Your task to perform on an android device: make emails show in primary in the gmail app Image 0: 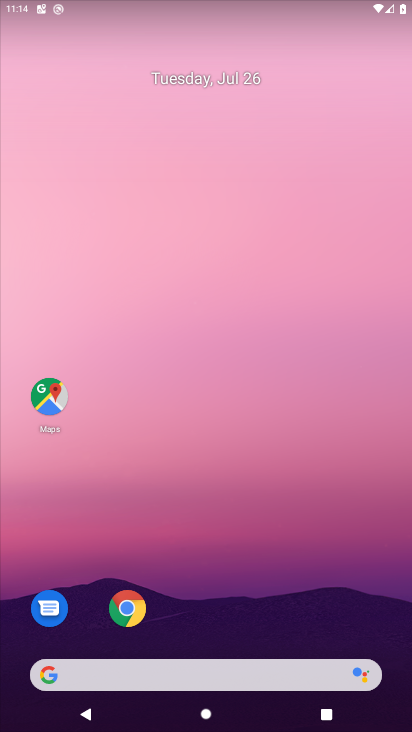
Step 0: click (316, 24)
Your task to perform on an android device: make emails show in primary in the gmail app Image 1: 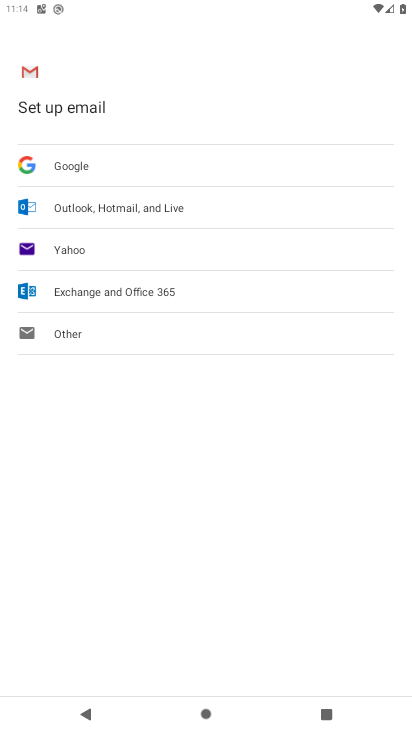
Step 1: press home button
Your task to perform on an android device: make emails show in primary in the gmail app Image 2: 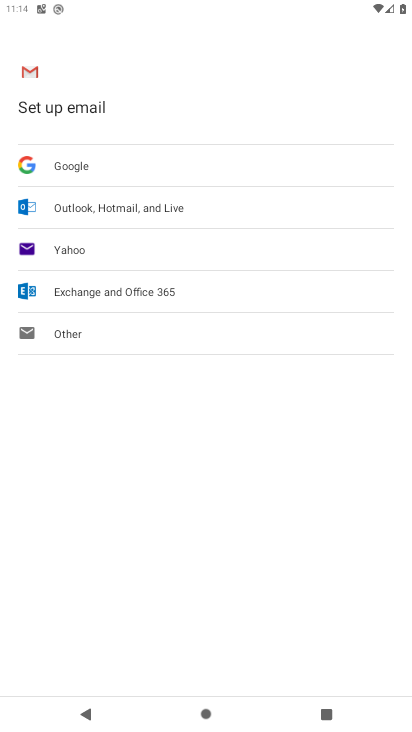
Step 2: press home button
Your task to perform on an android device: make emails show in primary in the gmail app Image 3: 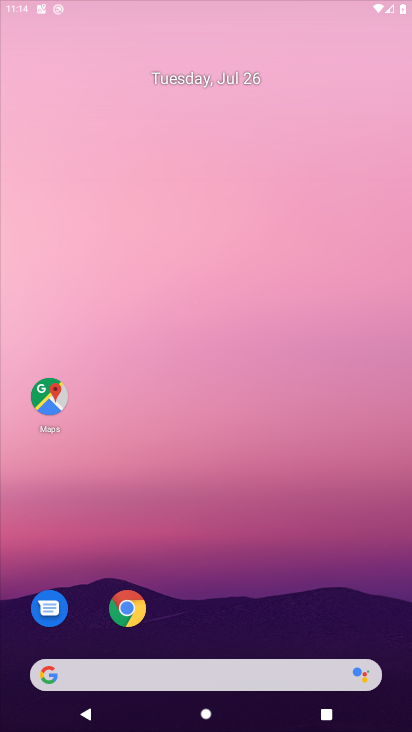
Step 3: drag from (187, 669) to (284, 165)
Your task to perform on an android device: make emails show in primary in the gmail app Image 4: 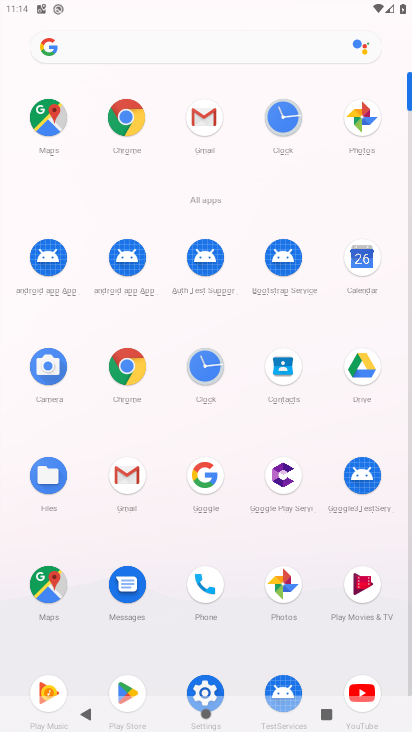
Step 4: click (128, 476)
Your task to perform on an android device: make emails show in primary in the gmail app Image 5: 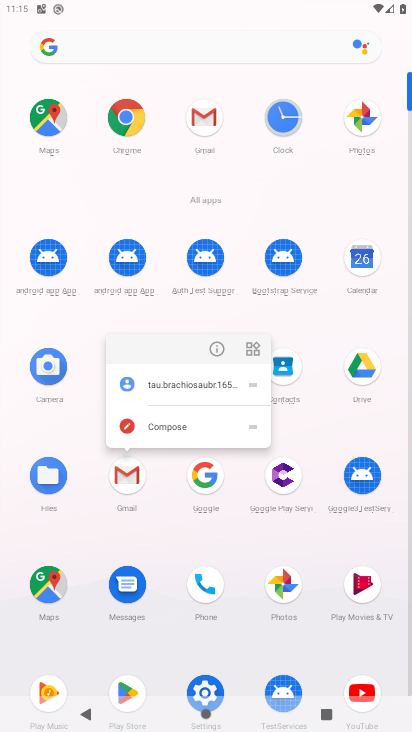
Step 5: click (212, 352)
Your task to perform on an android device: make emails show in primary in the gmail app Image 6: 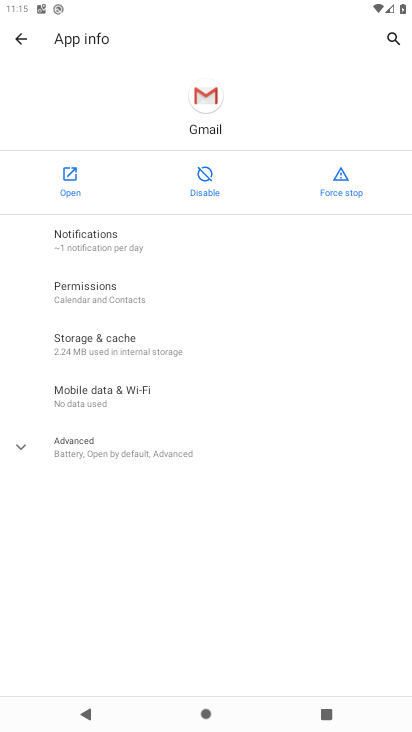
Step 6: click (67, 174)
Your task to perform on an android device: make emails show in primary in the gmail app Image 7: 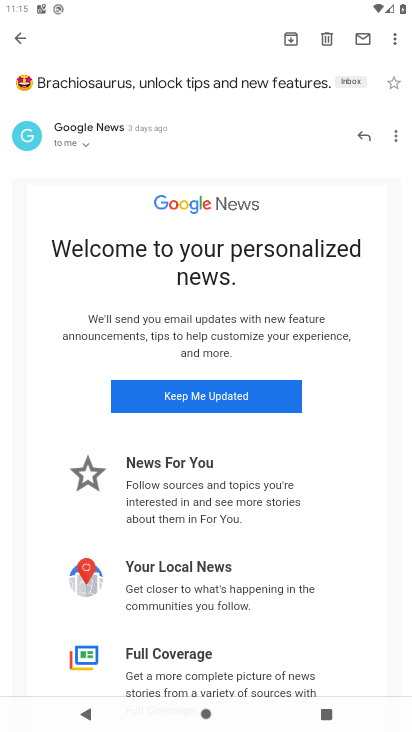
Step 7: click (18, 34)
Your task to perform on an android device: make emails show in primary in the gmail app Image 8: 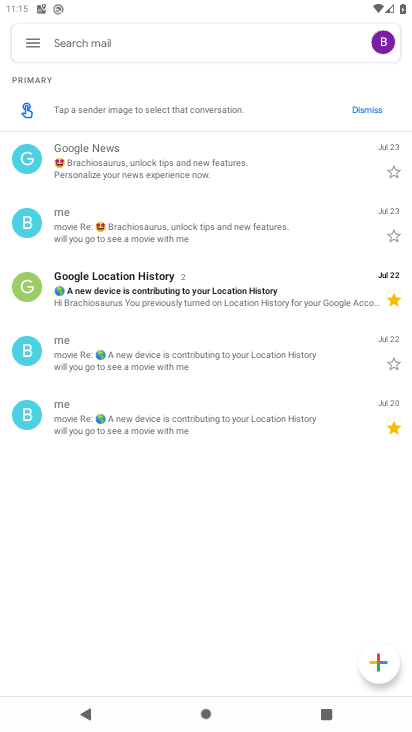
Step 8: click (35, 41)
Your task to perform on an android device: make emails show in primary in the gmail app Image 9: 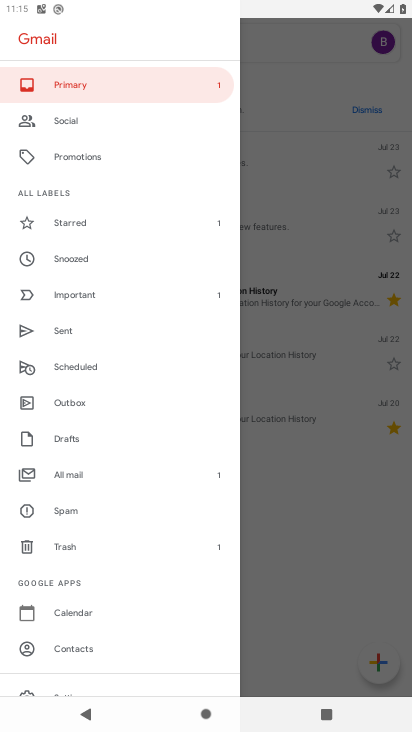
Step 9: drag from (64, 548) to (101, 51)
Your task to perform on an android device: make emails show in primary in the gmail app Image 10: 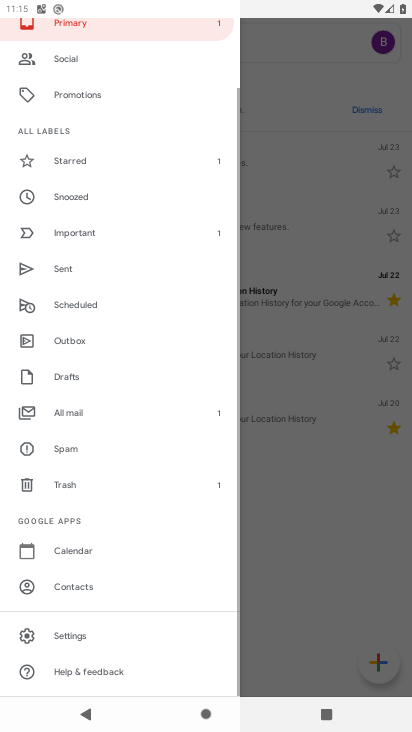
Step 10: drag from (66, 135) to (148, 624)
Your task to perform on an android device: make emails show in primary in the gmail app Image 11: 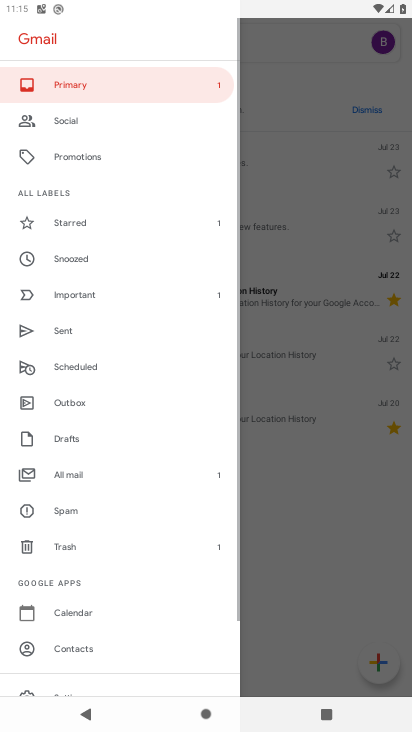
Step 11: click (56, 86)
Your task to perform on an android device: make emails show in primary in the gmail app Image 12: 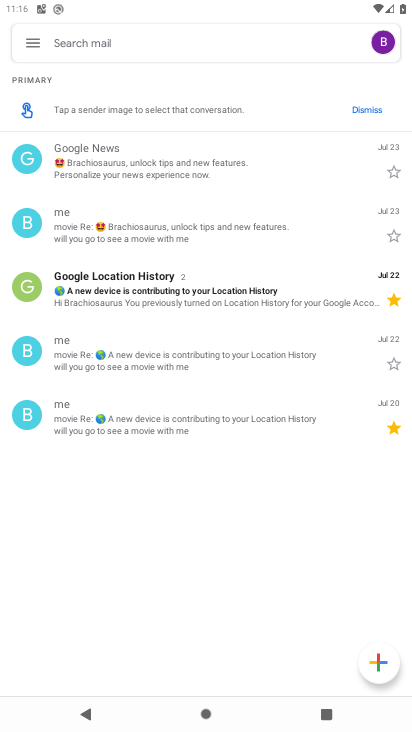
Step 12: task complete